Your task to perform on an android device: turn off notifications settings in the gmail app Image 0: 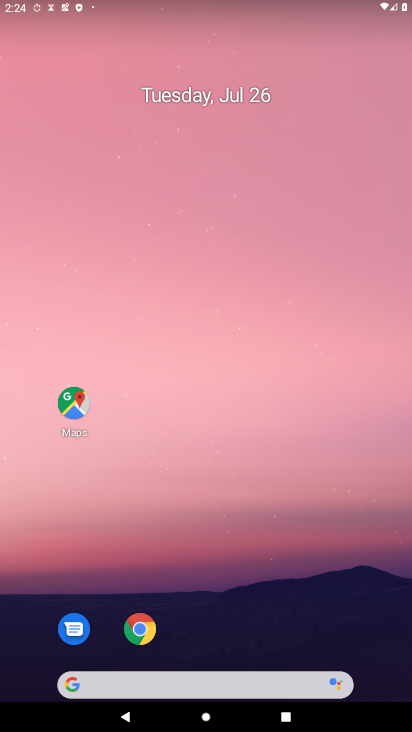
Step 0: drag from (142, 583) to (190, 95)
Your task to perform on an android device: turn off notifications settings in the gmail app Image 1: 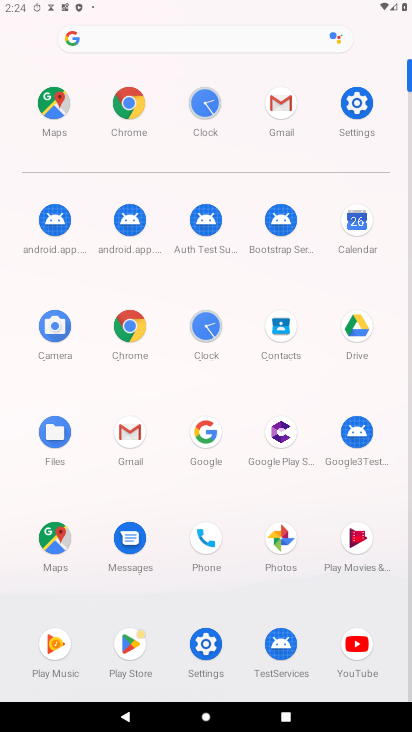
Step 1: click (131, 428)
Your task to perform on an android device: turn off notifications settings in the gmail app Image 2: 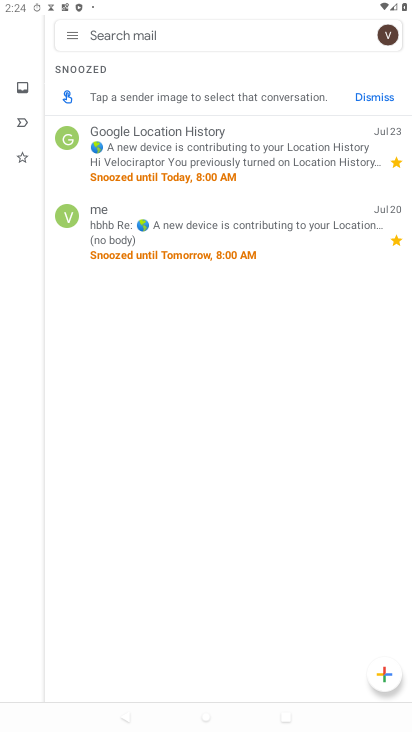
Step 2: click (63, 31)
Your task to perform on an android device: turn off notifications settings in the gmail app Image 3: 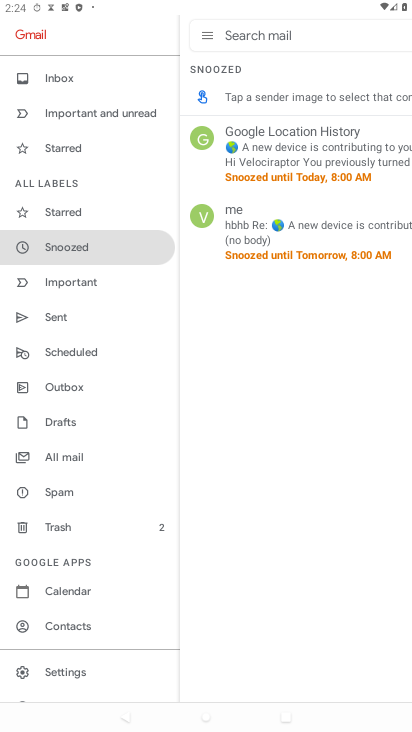
Step 3: click (71, 667)
Your task to perform on an android device: turn off notifications settings in the gmail app Image 4: 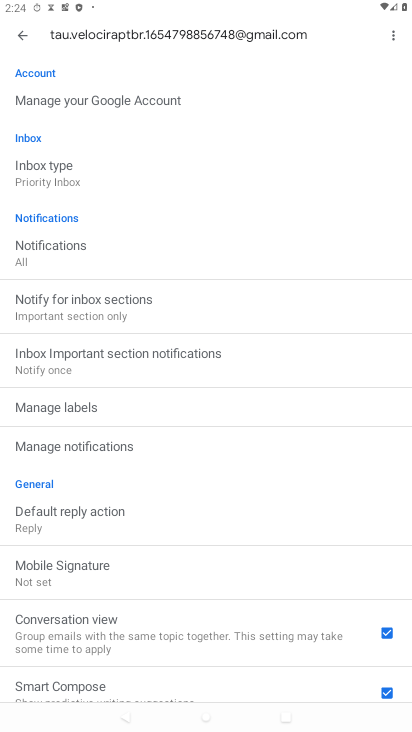
Step 4: click (111, 444)
Your task to perform on an android device: turn off notifications settings in the gmail app Image 5: 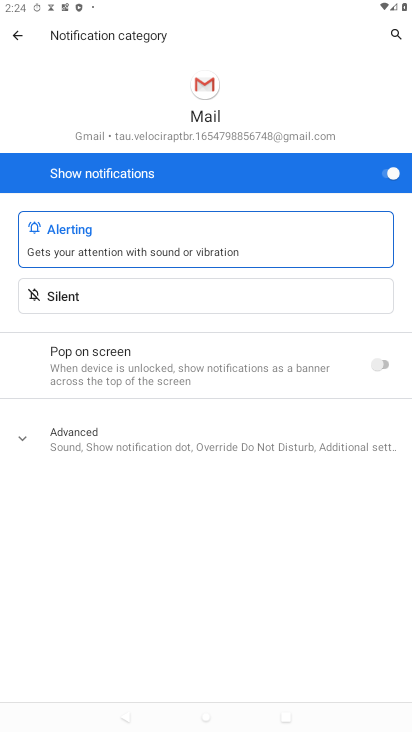
Step 5: click (396, 174)
Your task to perform on an android device: turn off notifications settings in the gmail app Image 6: 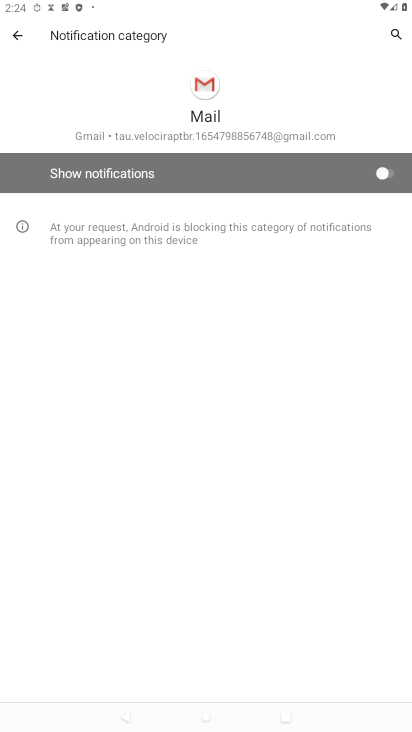
Step 6: task complete